Your task to perform on an android device: What's the weather going to be this weekend? Image 0: 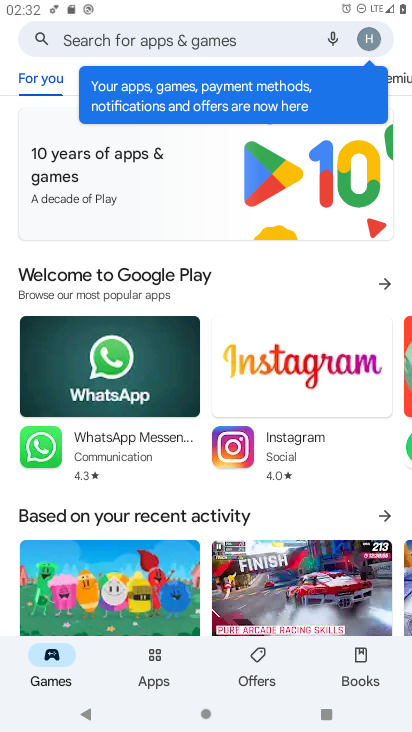
Step 0: press home button
Your task to perform on an android device: What's the weather going to be this weekend? Image 1: 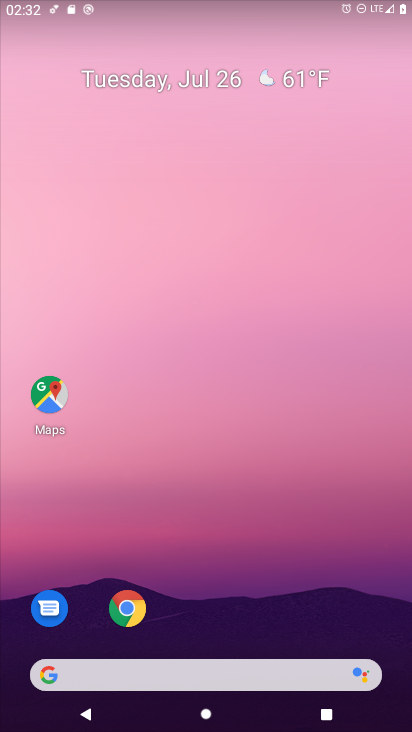
Step 1: click (214, 661)
Your task to perform on an android device: What's the weather going to be this weekend? Image 2: 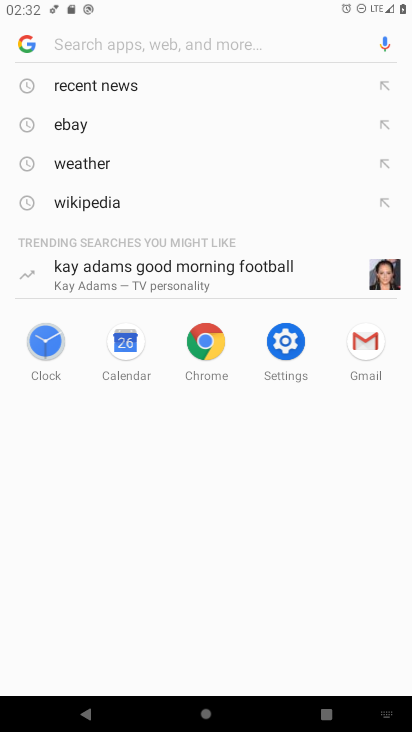
Step 2: click (76, 166)
Your task to perform on an android device: What's the weather going to be this weekend? Image 3: 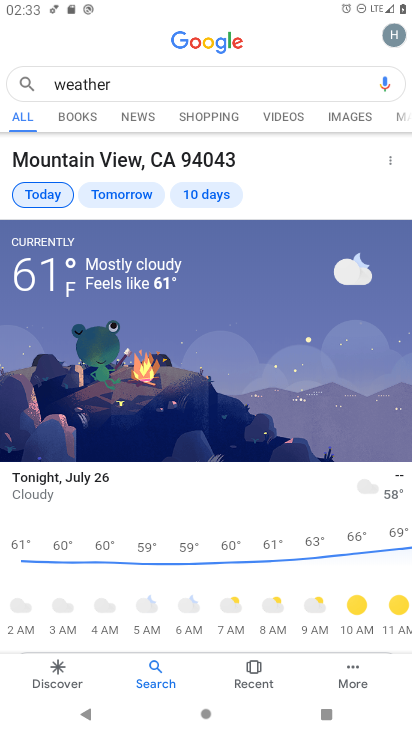
Step 3: click (198, 206)
Your task to perform on an android device: What's the weather going to be this weekend? Image 4: 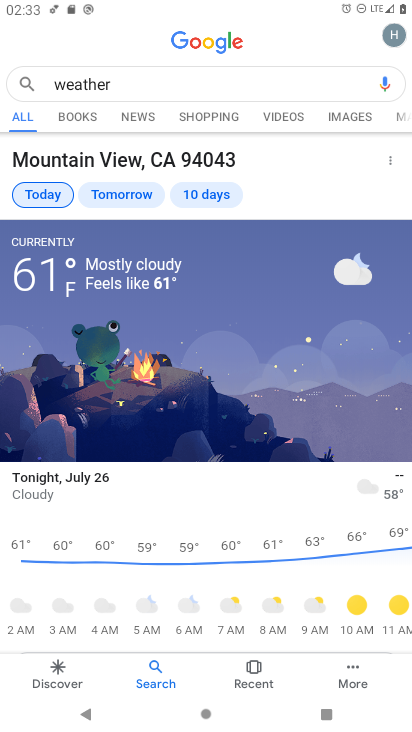
Step 4: click (223, 196)
Your task to perform on an android device: What's the weather going to be this weekend? Image 5: 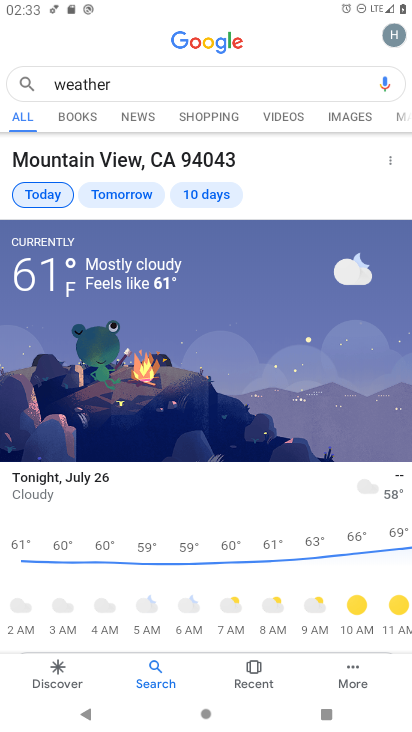
Step 5: task complete